Your task to perform on an android device: Open internet settings Image 0: 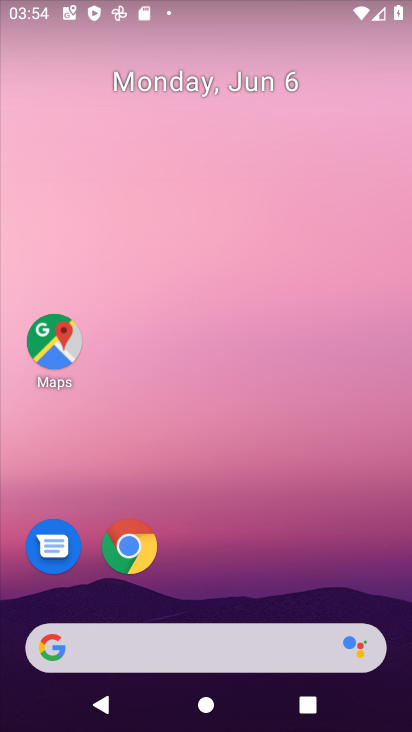
Step 0: drag from (240, 591) to (292, 75)
Your task to perform on an android device: Open internet settings Image 1: 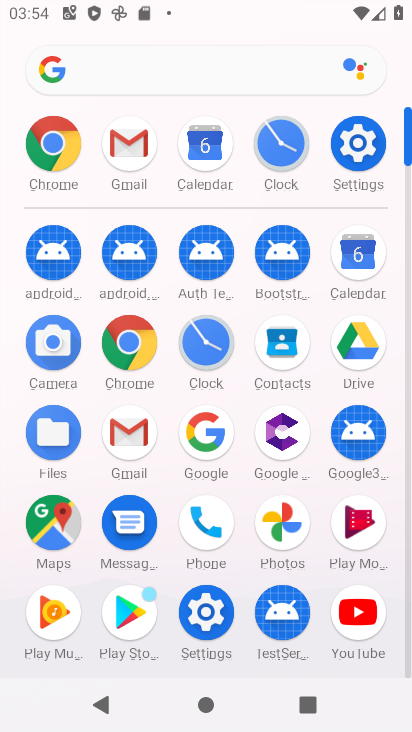
Step 1: click (348, 144)
Your task to perform on an android device: Open internet settings Image 2: 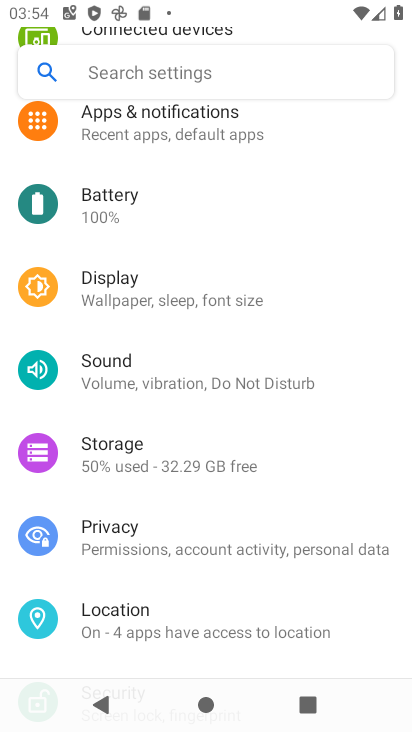
Step 2: drag from (175, 143) to (176, 548)
Your task to perform on an android device: Open internet settings Image 3: 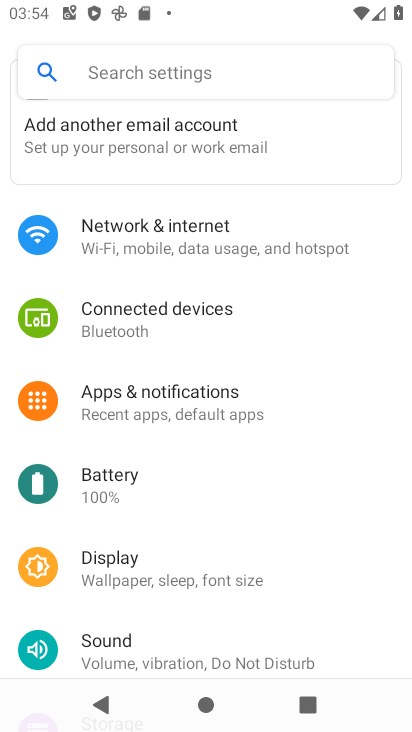
Step 3: click (208, 267)
Your task to perform on an android device: Open internet settings Image 4: 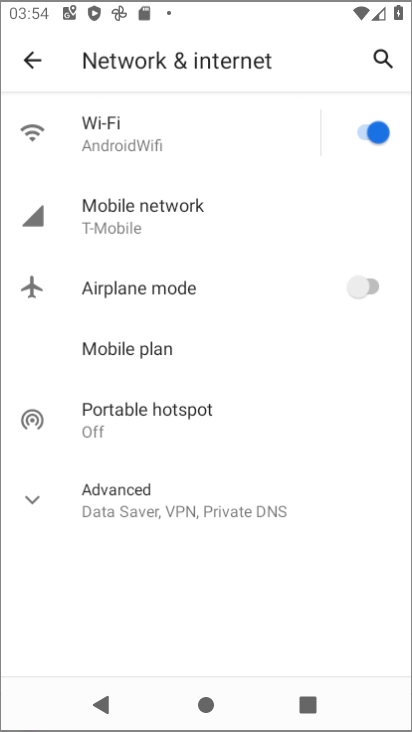
Step 4: task complete